Your task to perform on an android device: Go to wifi settings Image 0: 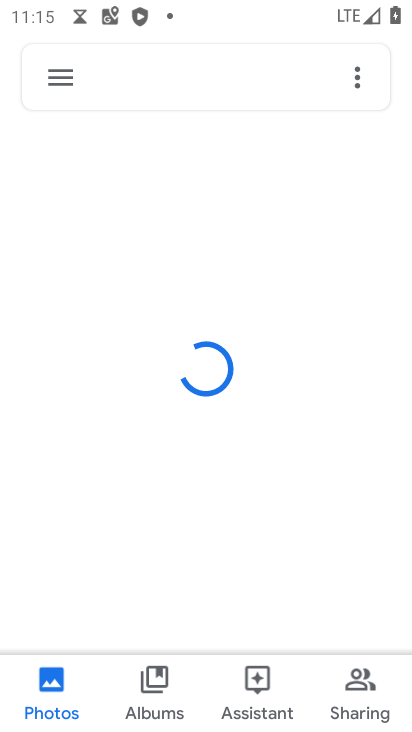
Step 0: press home button
Your task to perform on an android device: Go to wifi settings Image 1: 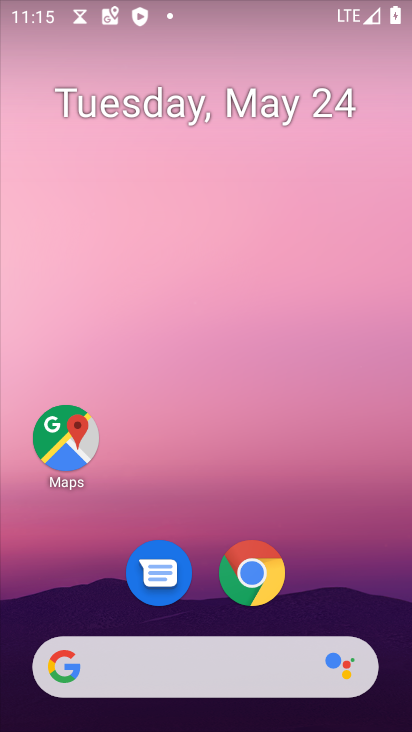
Step 1: drag from (79, 600) to (218, 43)
Your task to perform on an android device: Go to wifi settings Image 2: 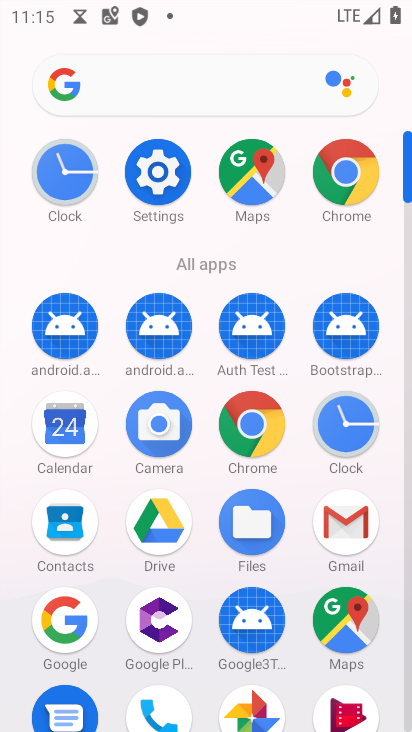
Step 2: drag from (199, 638) to (264, 274)
Your task to perform on an android device: Go to wifi settings Image 3: 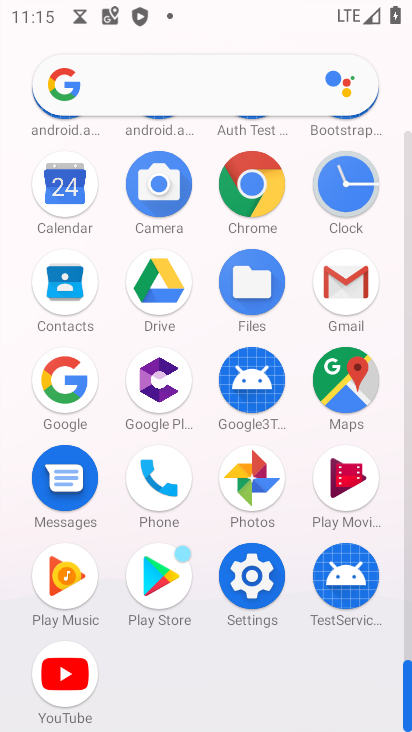
Step 3: click (258, 590)
Your task to perform on an android device: Go to wifi settings Image 4: 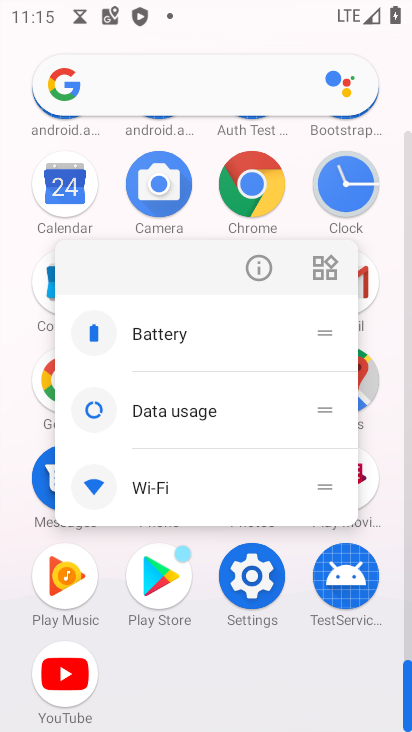
Step 4: click (257, 588)
Your task to perform on an android device: Go to wifi settings Image 5: 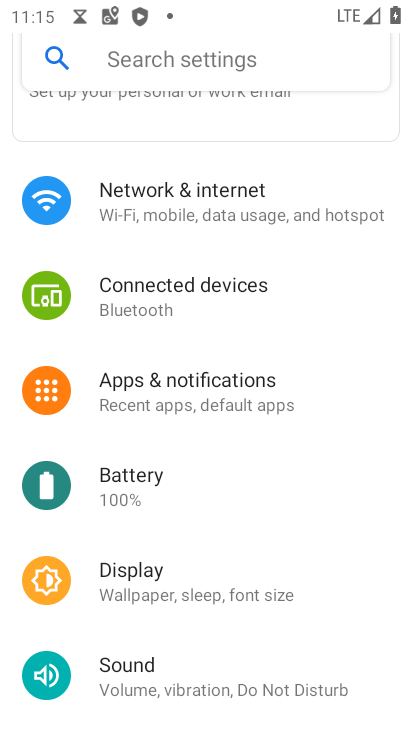
Step 5: click (215, 200)
Your task to perform on an android device: Go to wifi settings Image 6: 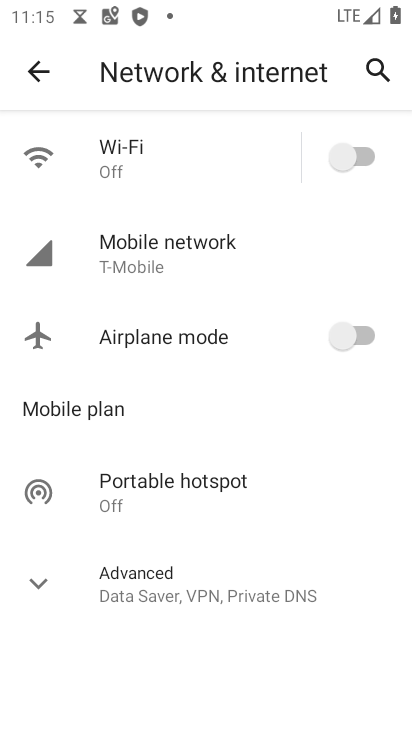
Step 6: click (135, 142)
Your task to perform on an android device: Go to wifi settings Image 7: 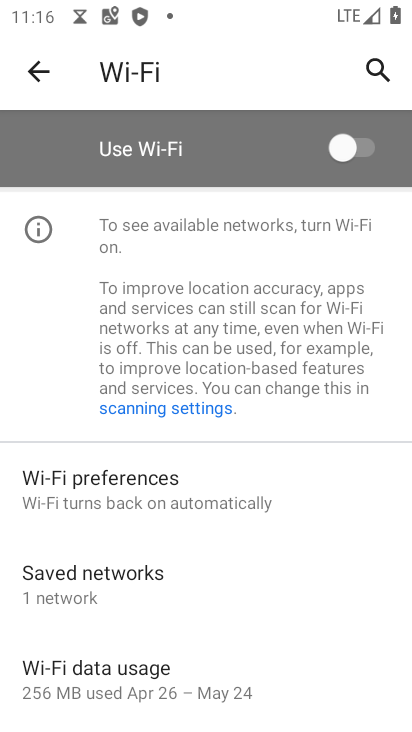
Step 7: task complete